Your task to perform on an android device: Go to accessibility settings Image 0: 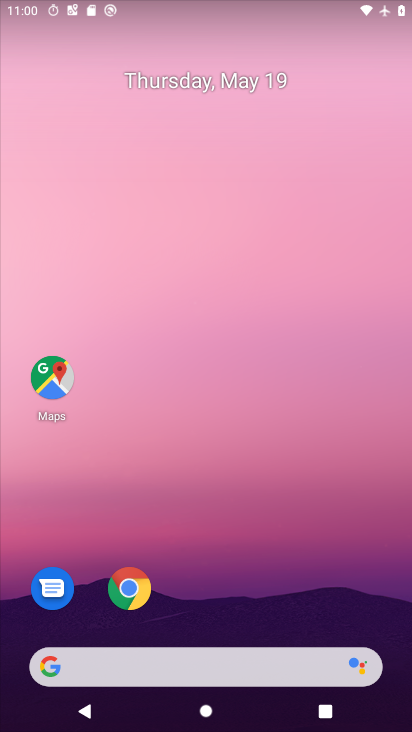
Step 0: press home button
Your task to perform on an android device: Go to accessibility settings Image 1: 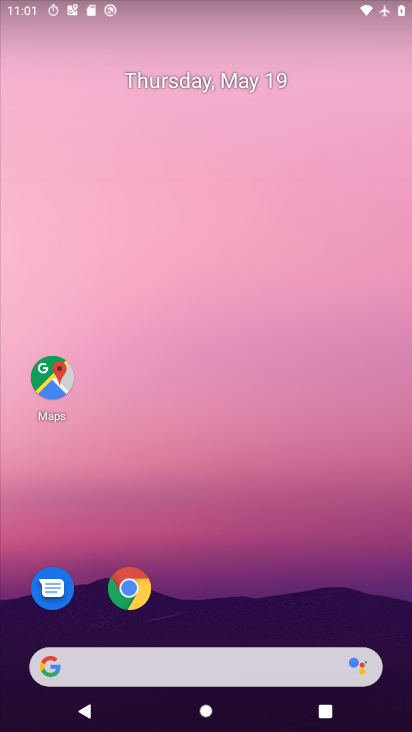
Step 1: drag from (156, 671) to (346, 118)
Your task to perform on an android device: Go to accessibility settings Image 2: 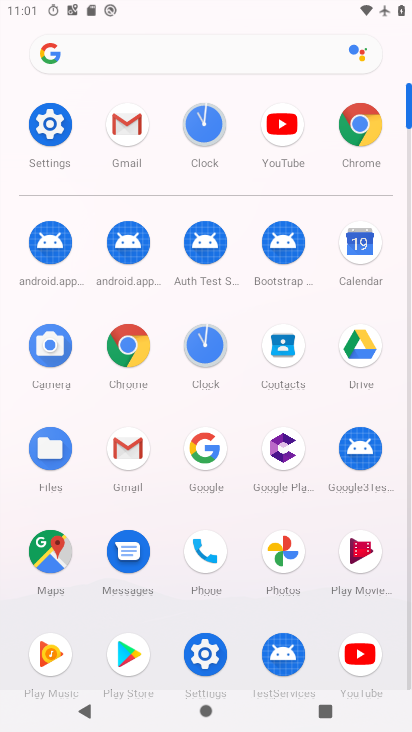
Step 2: click (49, 133)
Your task to perform on an android device: Go to accessibility settings Image 3: 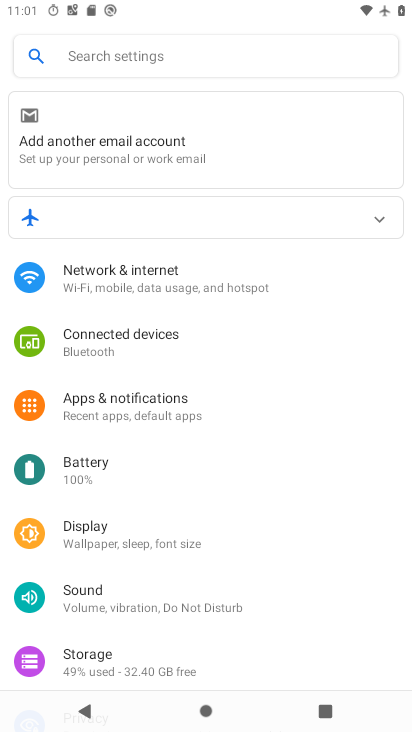
Step 3: drag from (242, 626) to (345, 161)
Your task to perform on an android device: Go to accessibility settings Image 4: 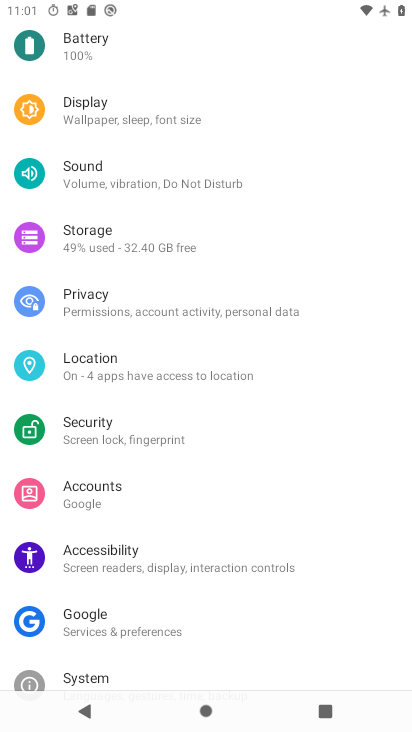
Step 4: click (110, 562)
Your task to perform on an android device: Go to accessibility settings Image 5: 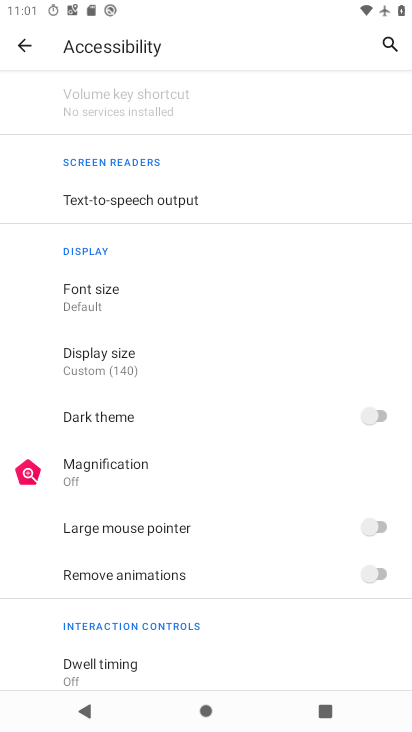
Step 5: task complete